Your task to perform on an android device: Open Wikipedia Image 0: 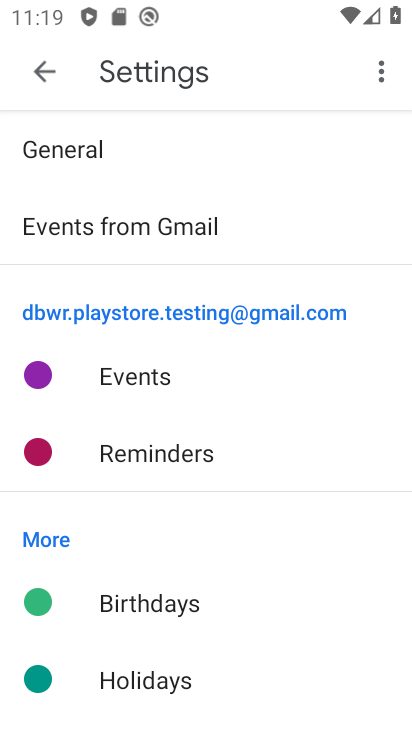
Step 0: press home button
Your task to perform on an android device: Open Wikipedia Image 1: 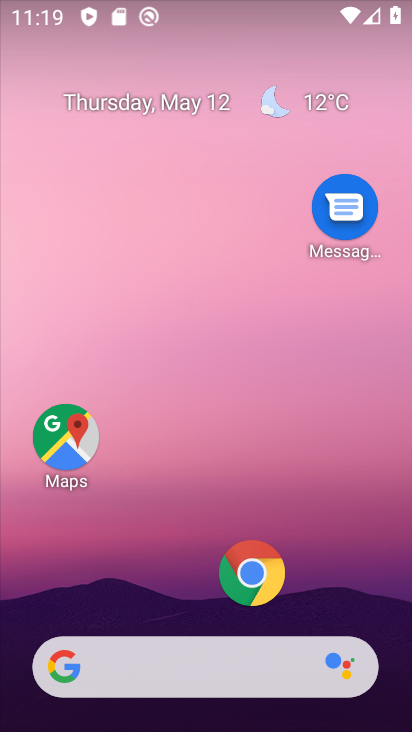
Step 1: click (246, 555)
Your task to perform on an android device: Open Wikipedia Image 2: 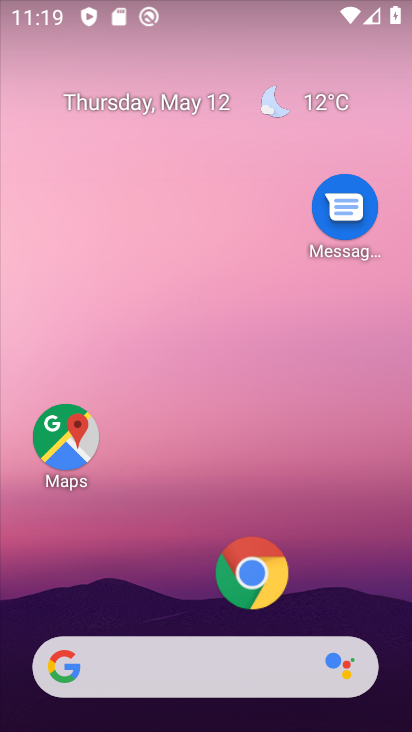
Step 2: click (246, 555)
Your task to perform on an android device: Open Wikipedia Image 3: 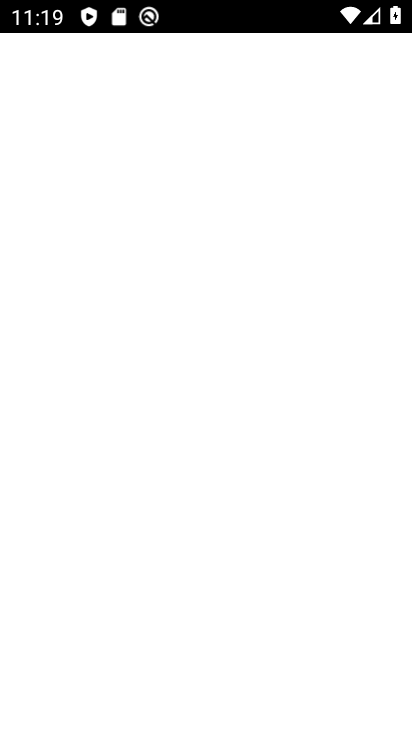
Step 3: click (246, 555)
Your task to perform on an android device: Open Wikipedia Image 4: 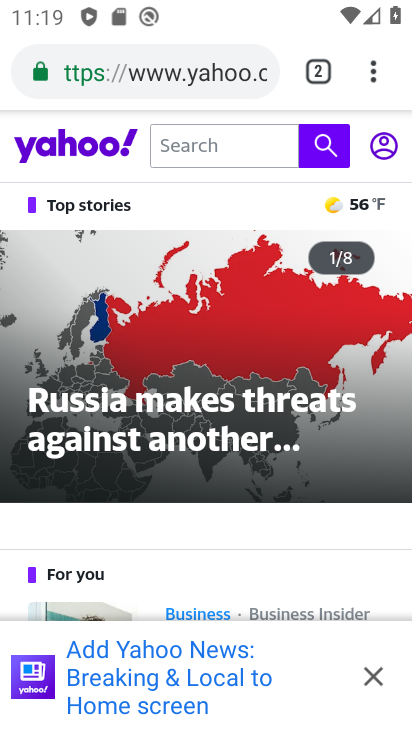
Step 4: click (129, 59)
Your task to perform on an android device: Open Wikipedia Image 5: 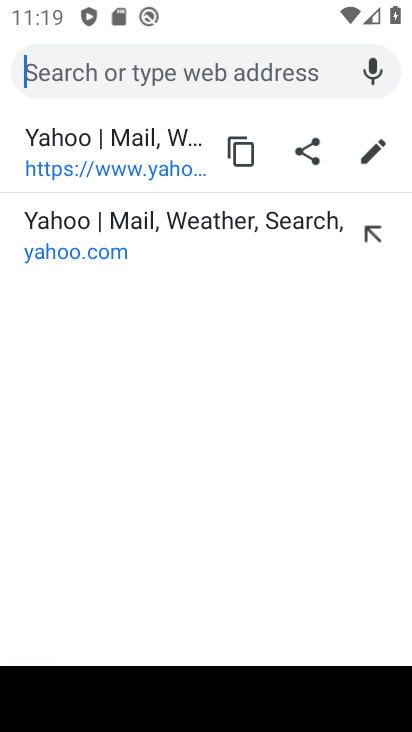
Step 5: type " Wikipedia"
Your task to perform on an android device: Open Wikipedia Image 6: 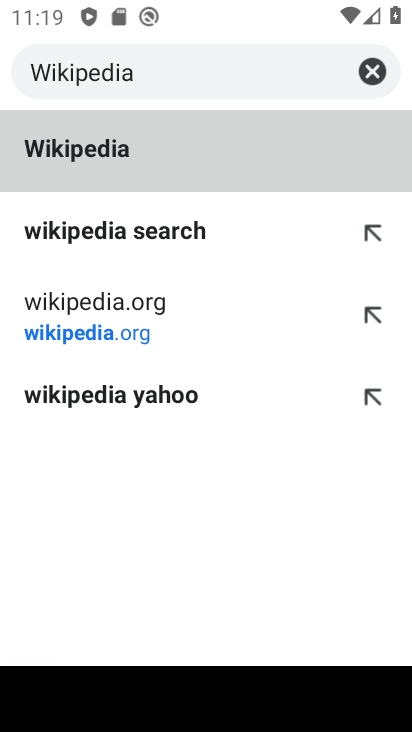
Step 6: click (310, 134)
Your task to perform on an android device: Open Wikipedia Image 7: 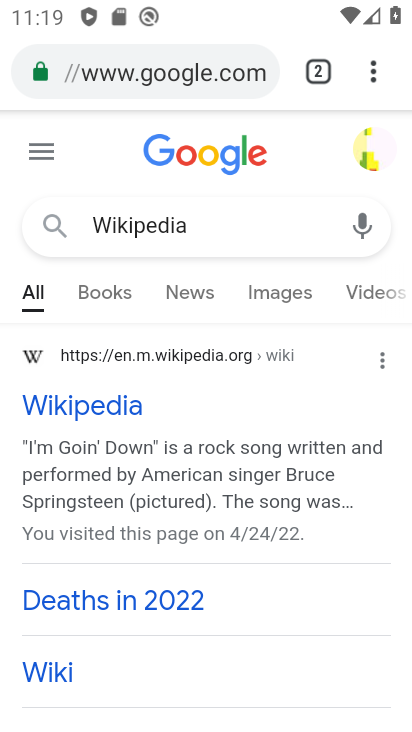
Step 7: click (131, 418)
Your task to perform on an android device: Open Wikipedia Image 8: 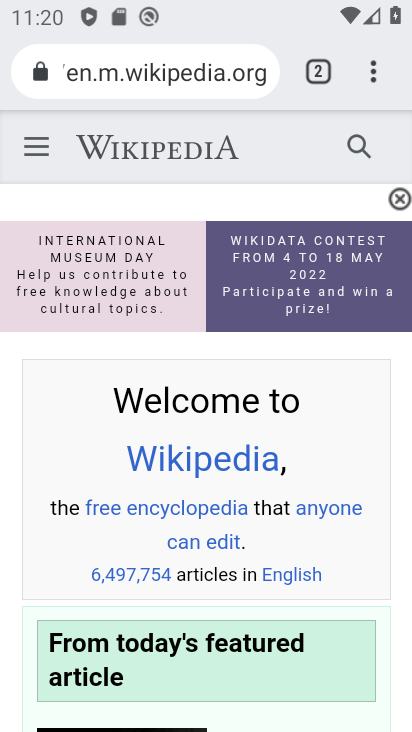
Step 8: task complete